Your task to perform on an android device: Open settings on Google Maps Image 0: 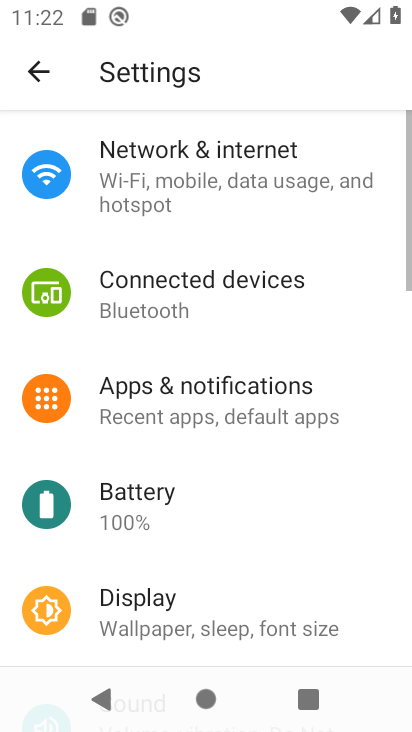
Step 0: drag from (265, 704) to (169, 391)
Your task to perform on an android device: Open settings on Google Maps Image 1: 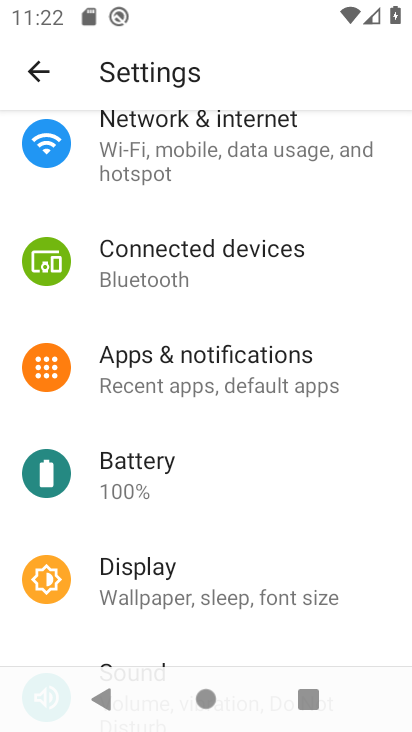
Step 1: click (40, 61)
Your task to perform on an android device: Open settings on Google Maps Image 2: 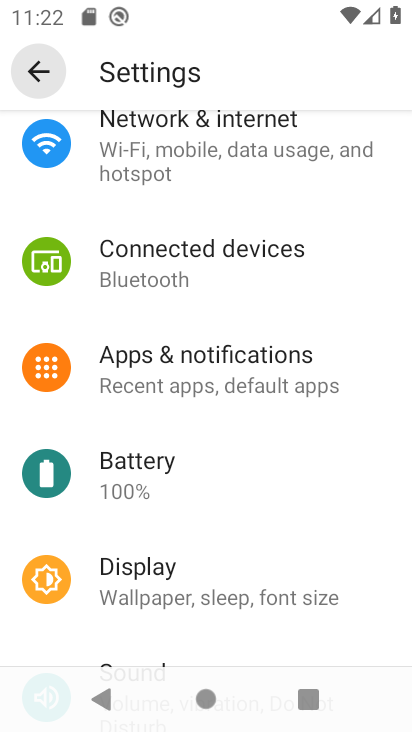
Step 2: click (36, 64)
Your task to perform on an android device: Open settings on Google Maps Image 3: 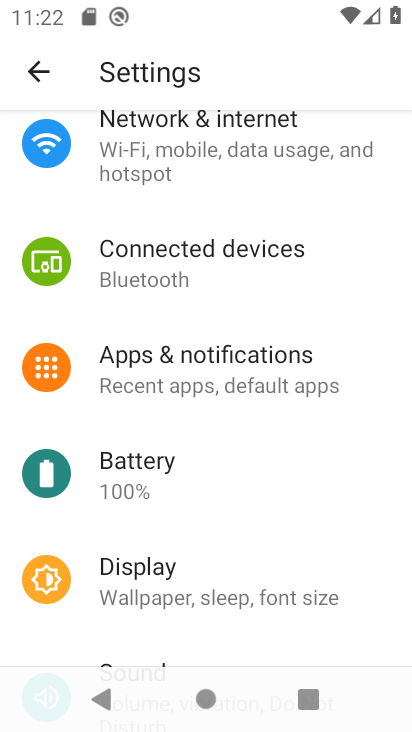
Step 3: click (36, 64)
Your task to perform on an android device: Open settings on Google Maps Image 4: 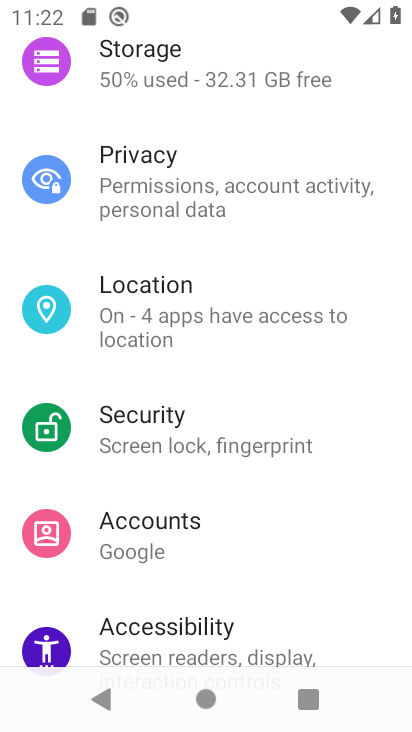
Step 4: drag from (205, 546) to (157, 155)
Your task to perform on an android device: Open settings on Google Maps Image 5: 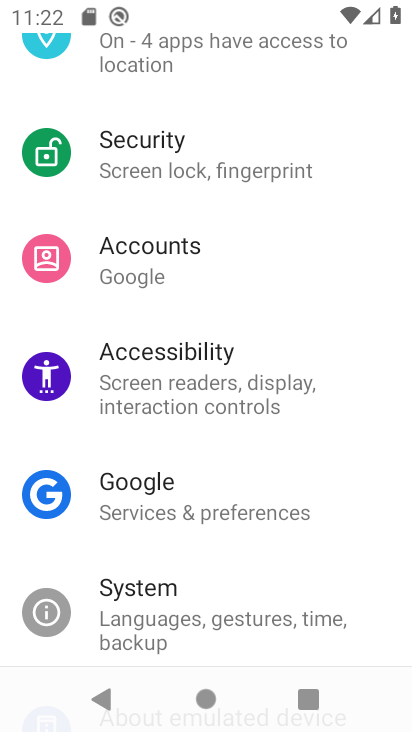
Step 5: drag from (168, 457) to (181, 123)
Your task to perform on an android device: Open settings on Google Maps Image 6: 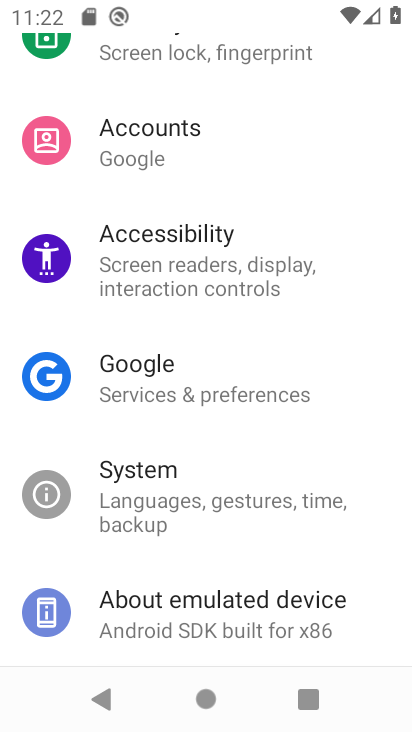
Step 6: drag from (199, 486) to (209, 177)
Your task to perform on an android device: Open settings on Google Maps Image 7: 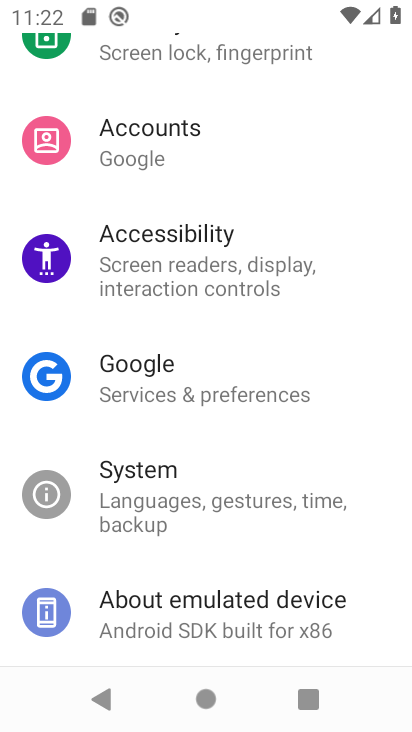
Step 7: press home button
Your task to perform on an android device: Open settings on Google Maps Image 8: 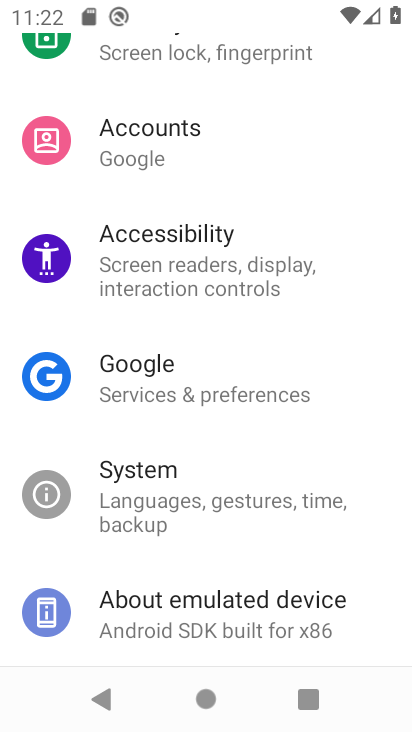
Step 8: press home button
Your task to perform on an android device: Open settings on Google Maps Image 9: 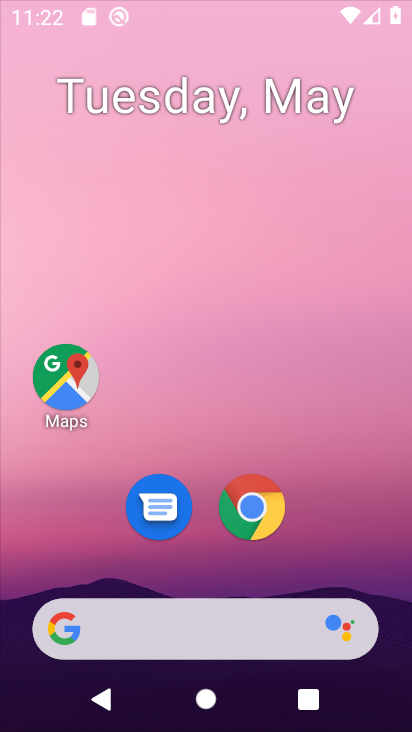
Step 9: press home button
Your task to perform on an android device: Open settings on Google Maps Image 10: 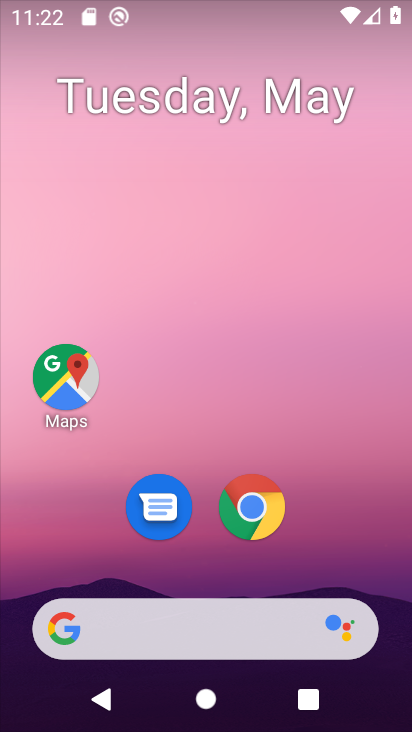
Step 10: drag from (256, 685) to (181, 178)
Your task to perform on an android device: Open settings on Google Maps Image 11: 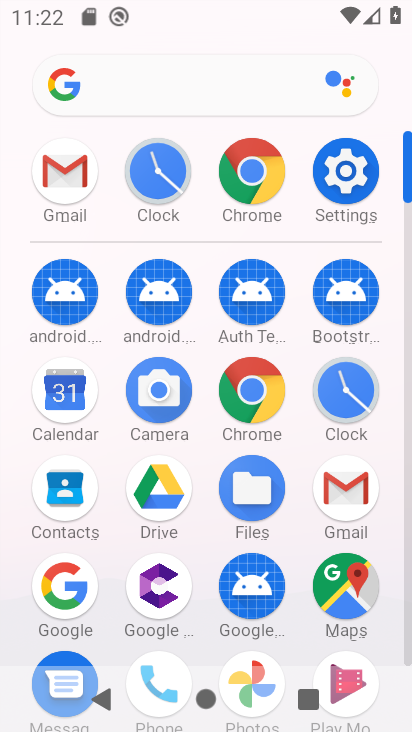
Step 11: click (336, 603)
Your task to perform on an android device: Open settings on Google Maps Image 12: 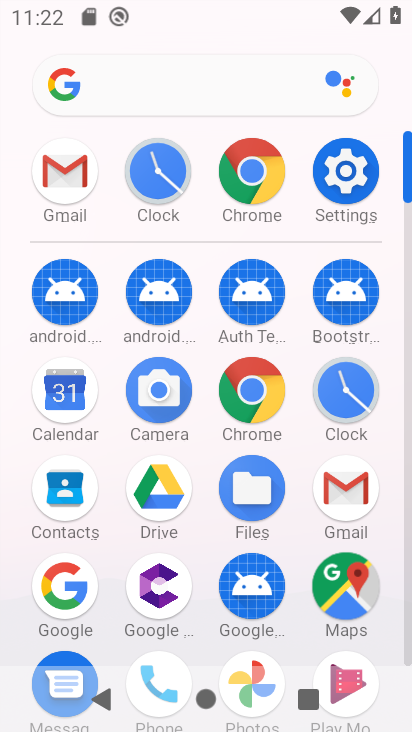
Step 12: click (338, 600)
Your task to perform on an android device: Open settings on Google Maps Image 13: 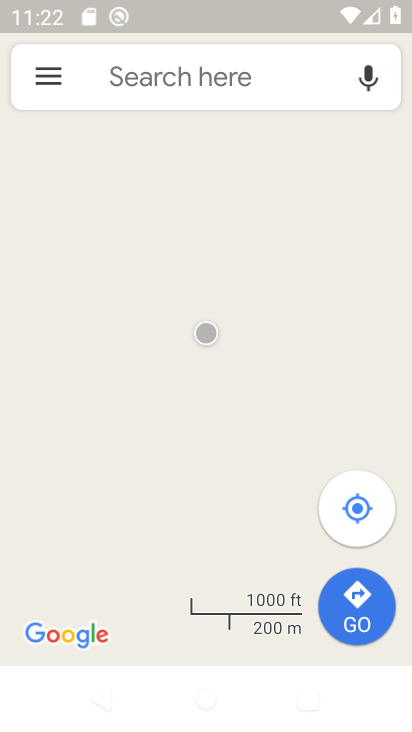
Step 13: click (114, 70)
Your task to perform on an android device: Open settings on Google Maps Image 14: 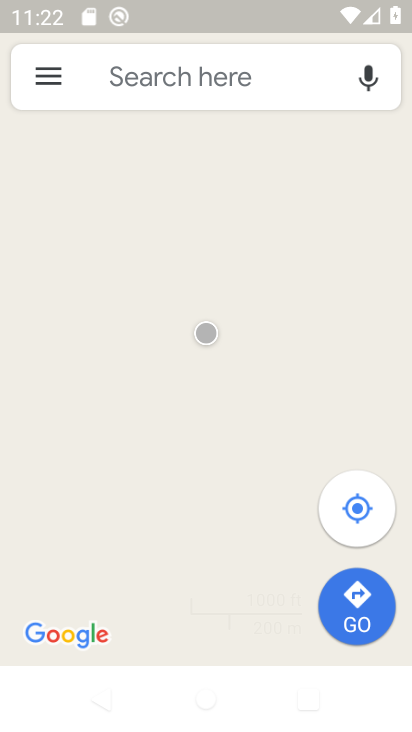
Step 14: click (114, 70)
Your task to perform on an android device: Open settings on Google Maps Image 15: 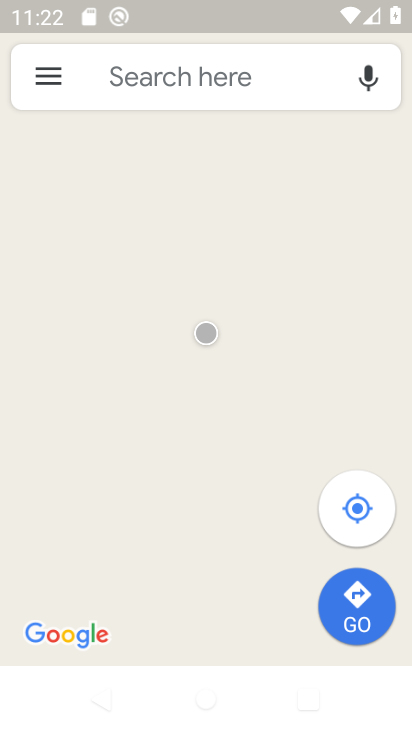
Step 15: click (117, 76)
Your task to perform on an android device: Open settings on Google Maps Image 16: 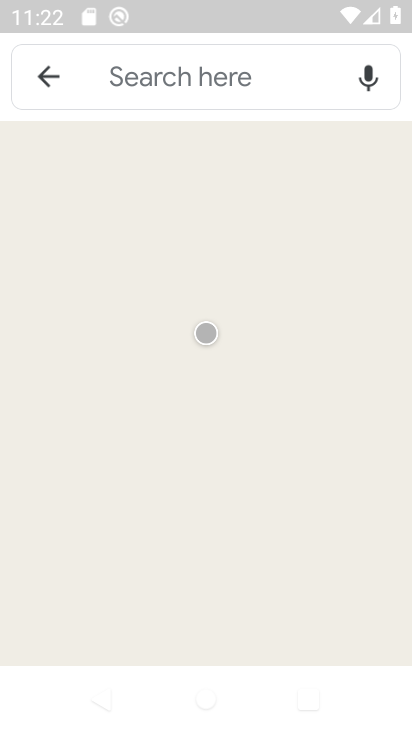
Step 16: task complete